Your task to perform on an android device: Open Chrome and go to settings Image 0: 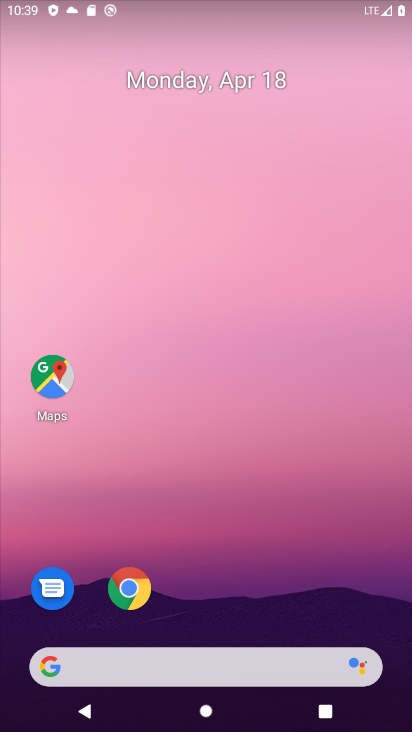
Step 0: click (130, 590)
Your task to perform on an android device: Open Chrome and go to settings Image 1: 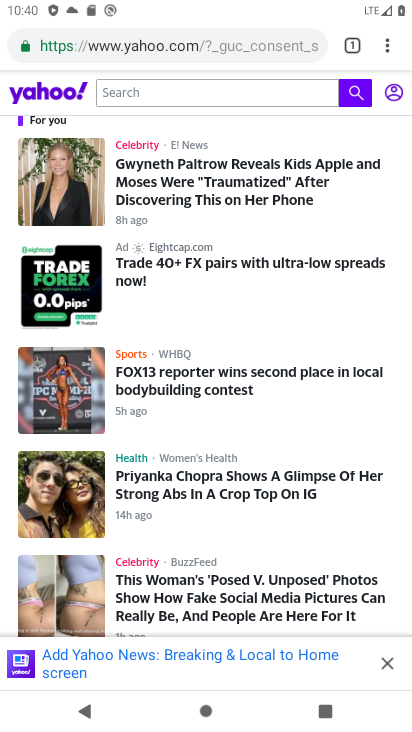
Step 1: click (387, 47)
Your task to perform on an android device: Open Chrome and go to settings Image 2: 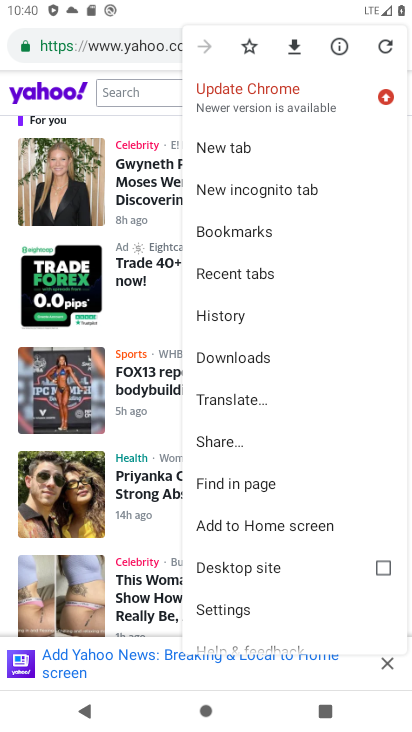
Step 2: click (223, 611)
Your task to perform on an android device: Open Chrome and go to settings Image 3: 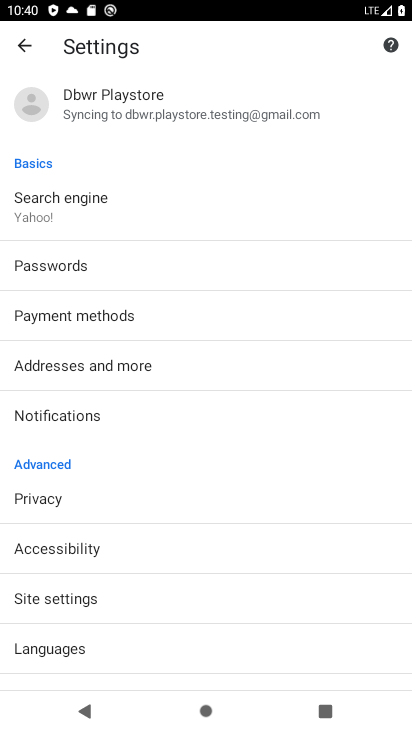
Step 3: task complete